Your task to perform on an android device: visit the assistant section in the google photos Image 0: 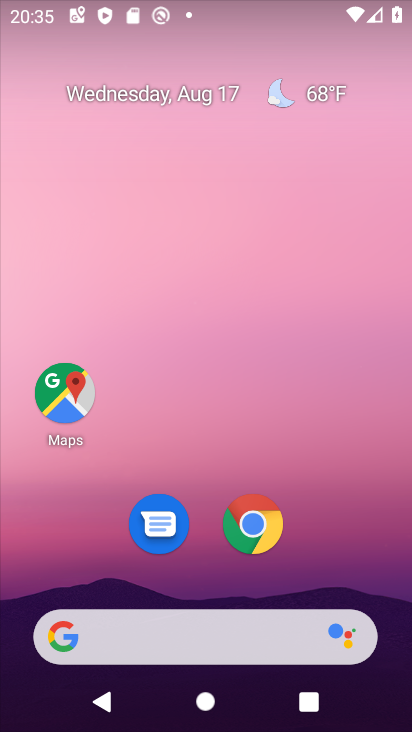
Step 0: drag from (322, 556) to (365, 4)
Your task to perform on an android device: visit the assistant section in the google photos Image 1: 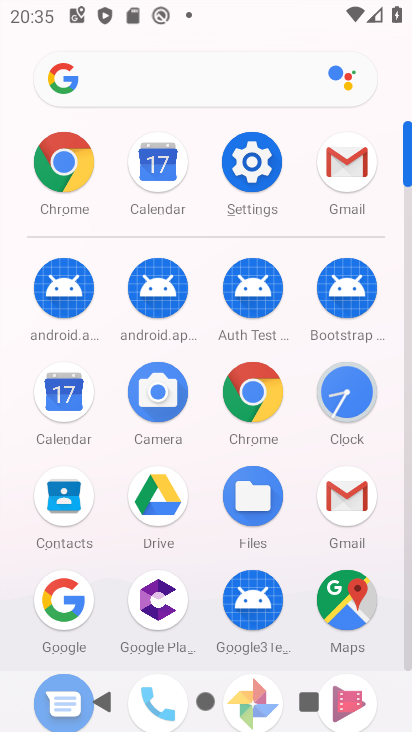
Step 1: drag from (287, 473) to (303, 109)
Your task to perform on an android device: visit the assistant section in the google photos Image 2: 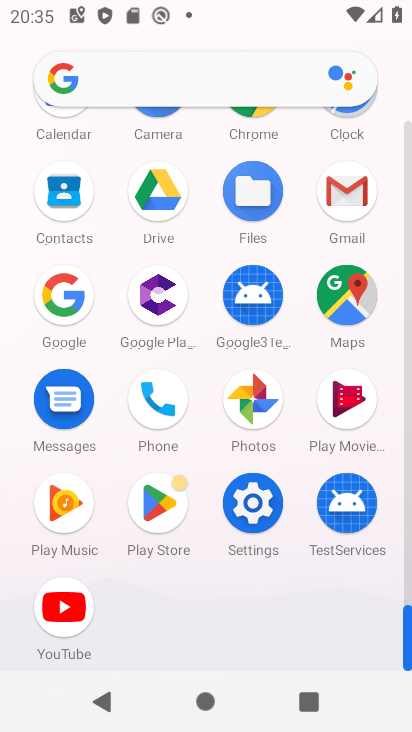
Step 2: click (260, 395)
Your task to perform on an android device: visit the assistant section in the google photos Image 3: 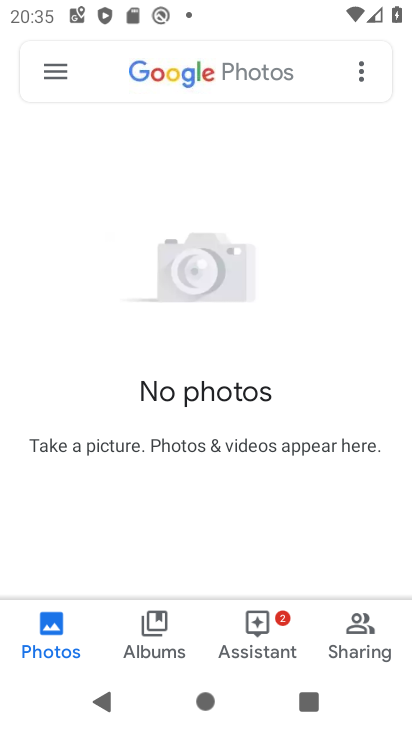
Step 3: click (256, 639)
Your task to perform on an android device: visit the assistant section in the google photos Image 4: 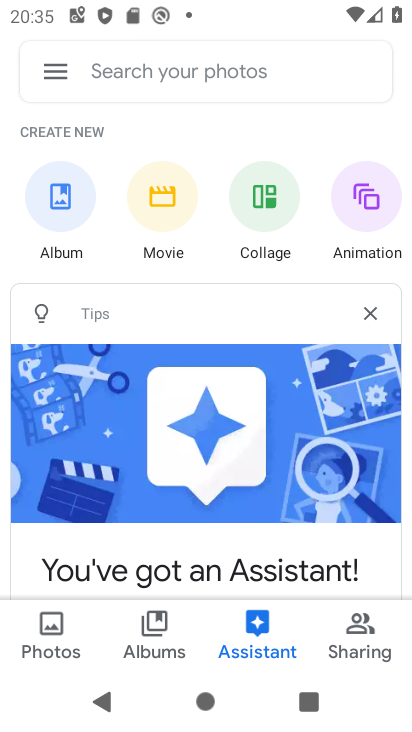
Step 4: task complete